Your task to perform on an android device: Open Android settings Image 0: 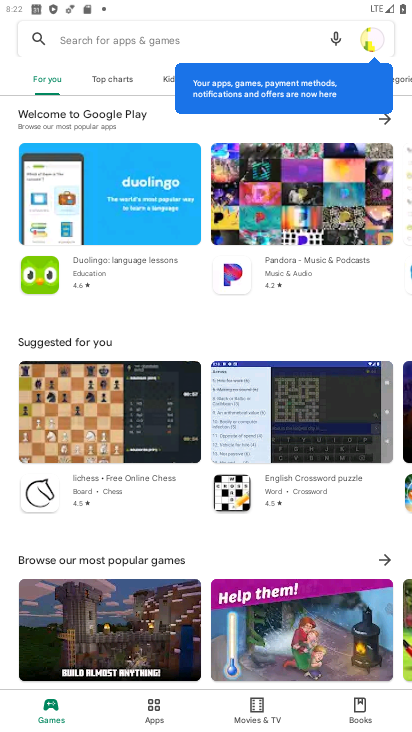
Step 0: press home button
Your task to perform on an android device: Open Android settings Image 1: 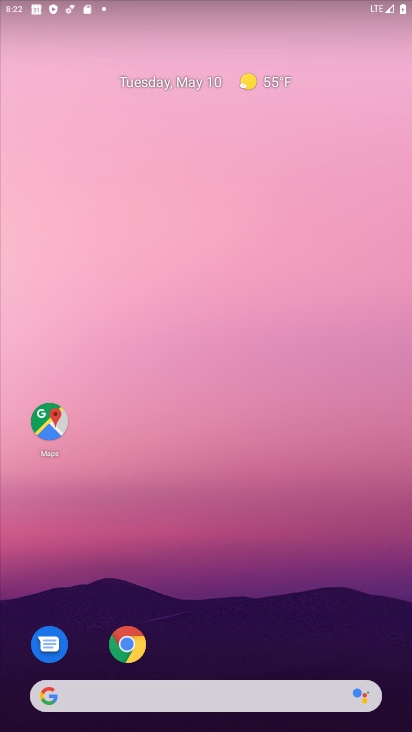
Step 1: drag from (244, 471) to (225, 265)
Your task to perform on an android device: Open Android settings Image 2: 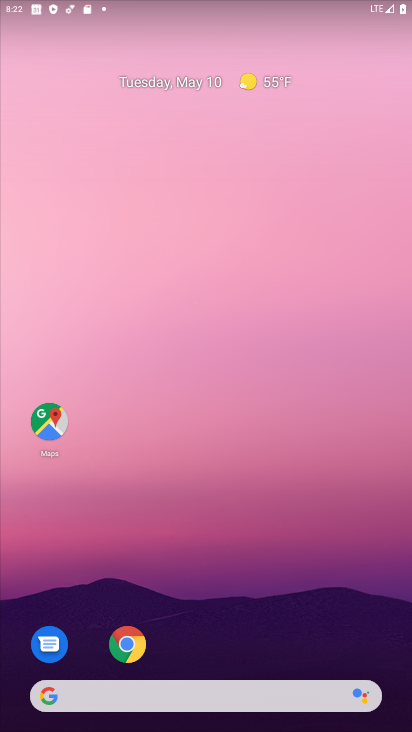
Step 2: drag from (261, 651) to (247, 136)
Your task to perform on an android device: Open Android settings Image 3: 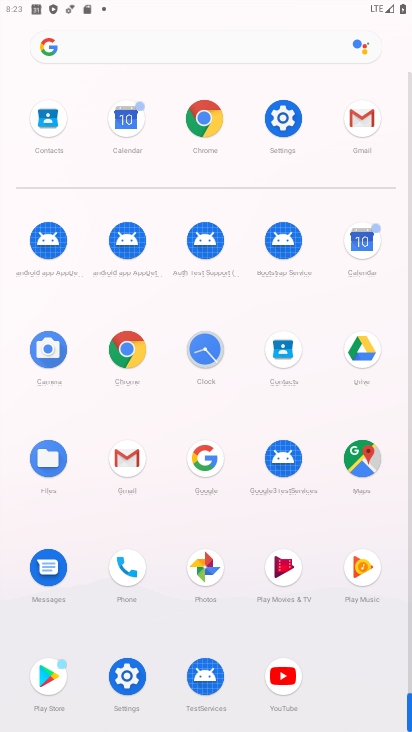
Step 3: click (264, 138)
Your task to perform on an android device: Open Android settings Image 4: 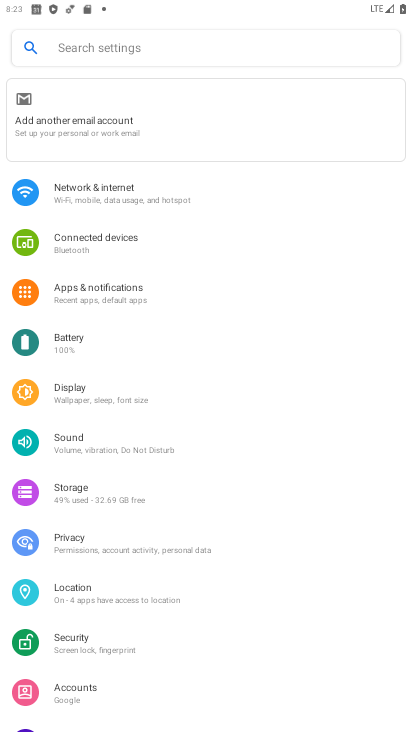
Step 4: drag from (123, 518) to (146, 201)
Your task to perform on an android device: Open Android settings Image 5: 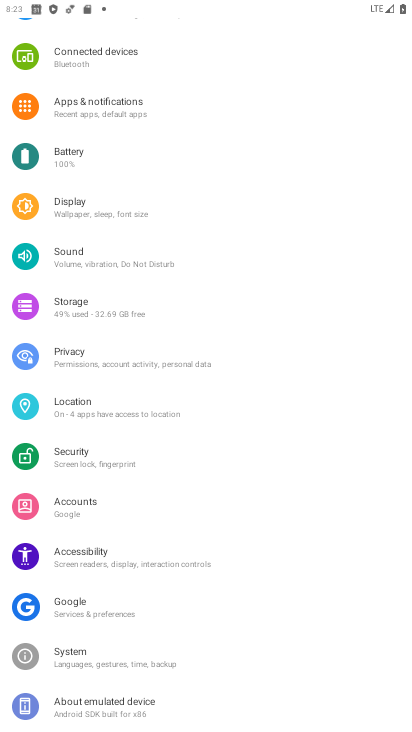
Step 5: drag from (225, 530) to (248, 332)
Your task to perform on an android device: Open Android settings Image 6: 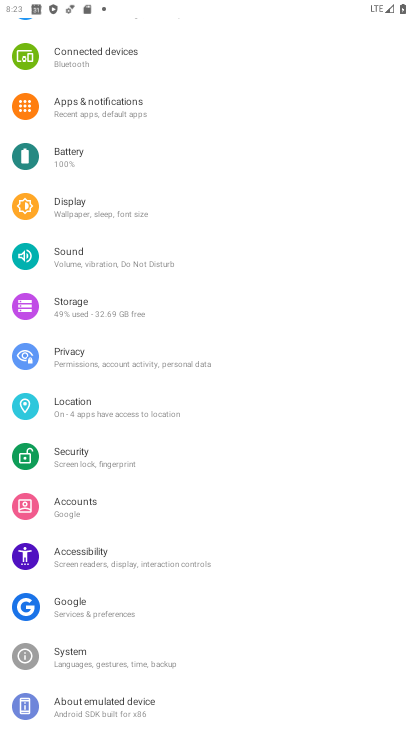
Step 6: click (201, 711)
Your task to perform on an android device: Open Android settings Image 7: 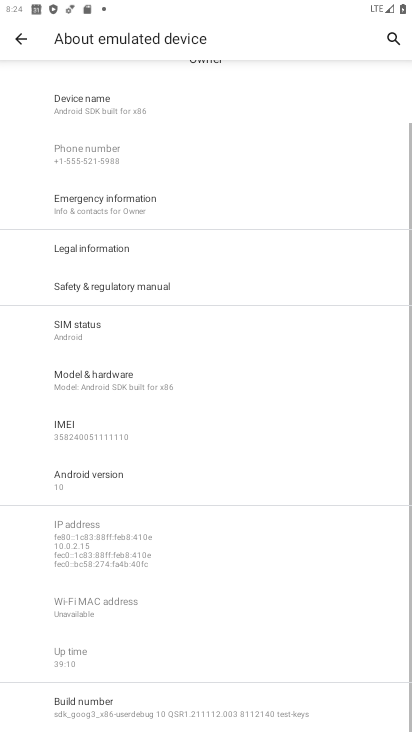
Step 7: click (137, 483)
Your task to perform on an android device: Open Android settings Image 8: 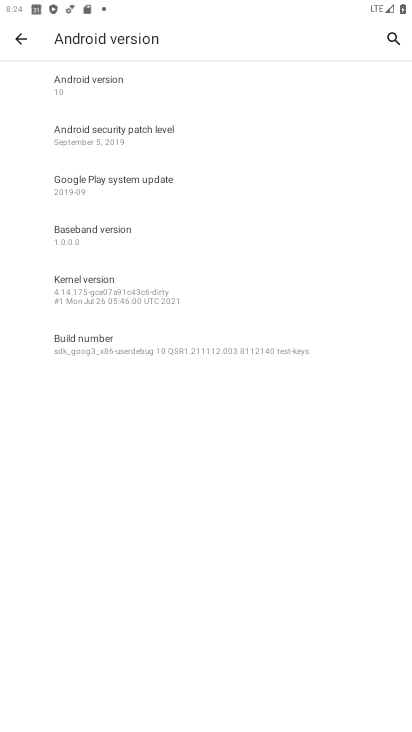
Step 8: task complete